Your task to perform on an android device: Open the Play Movies app and select the watchlist tab. Image 0: 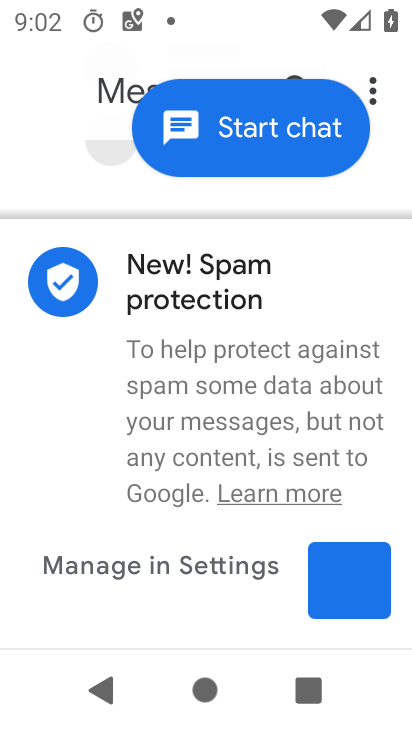
Step 0: press home button
Your task to perform on an android device: Open the Play Movies app and select the watchlist tab. Image 1: 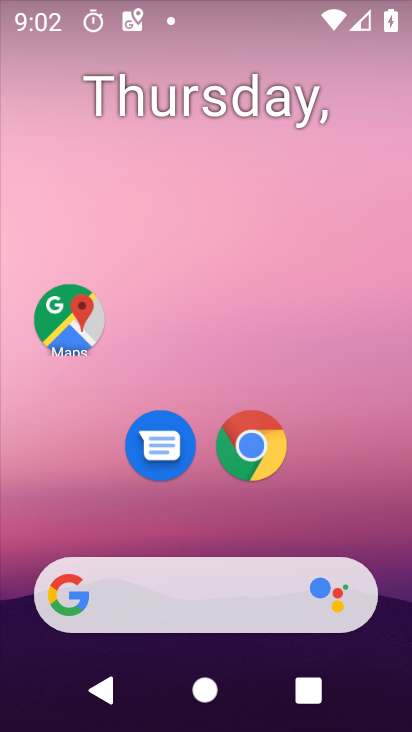
Step 1: drag from (378, 562) to (347, 10)
Your task to perform on an android device: Open the Play Movies app and select the watchlist tab. Image 2: 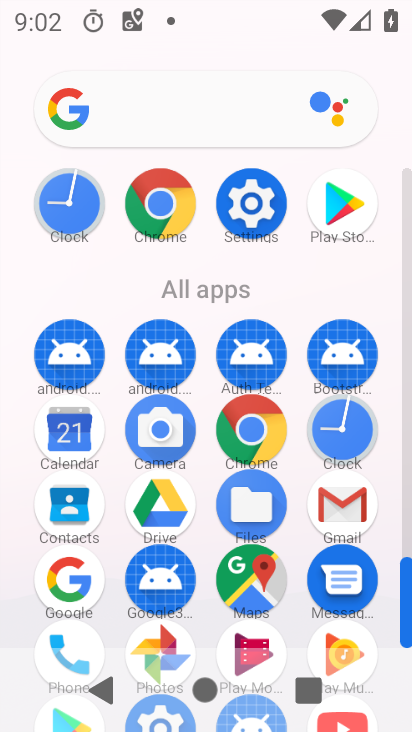
Step 2: drag from (403, 455) to (398, 410)
Your task to perform on an android device: Open the Play Movies app and select the watchlist tab. Image 3: 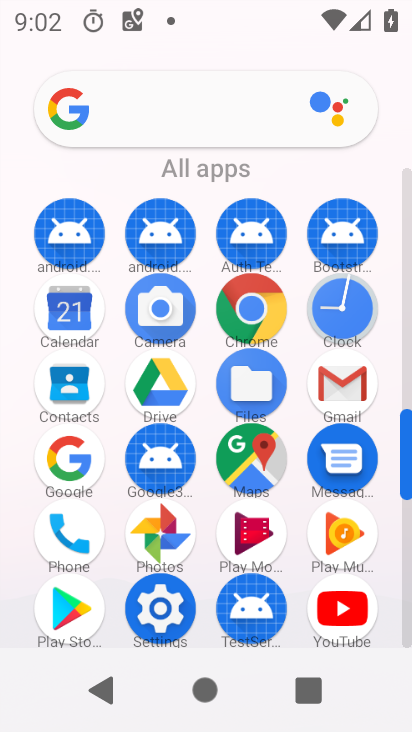
Step 3: click (244, 544)
Your task to perform on an android device: Open the Play Movies app and select the watchlist tab. Image 4: 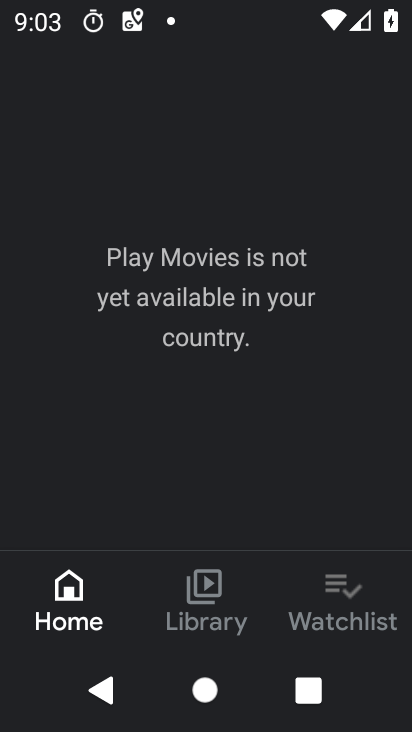
Step 4: click (329, 624)
Your task to perform on an android device: Open the Play Movies app and select the watchlist tab. Image 5: 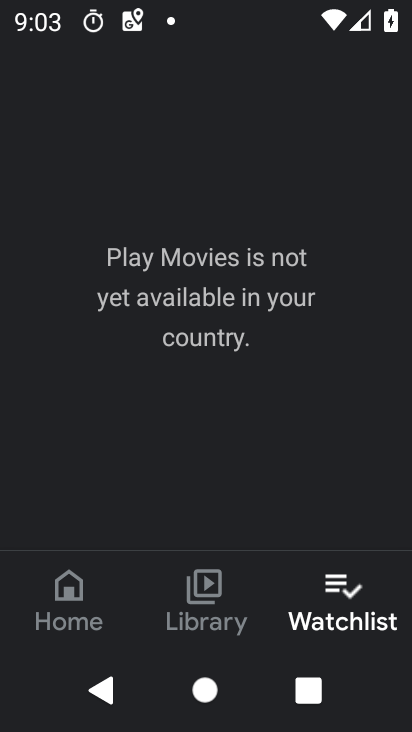
Step 5: task complete